Your task to perform on an android device: Open Google Chrome and open the bookmarks view Image 0: 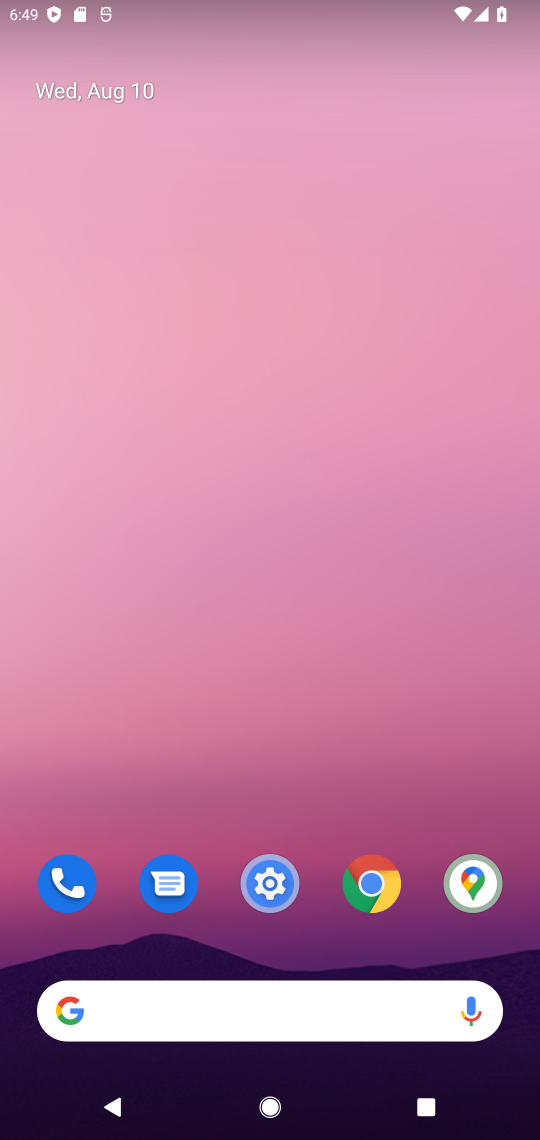
Step 0: click (363, 902)
Your task to perform on an android device: Open Google Chrome and open the bookmarks view Image 1: 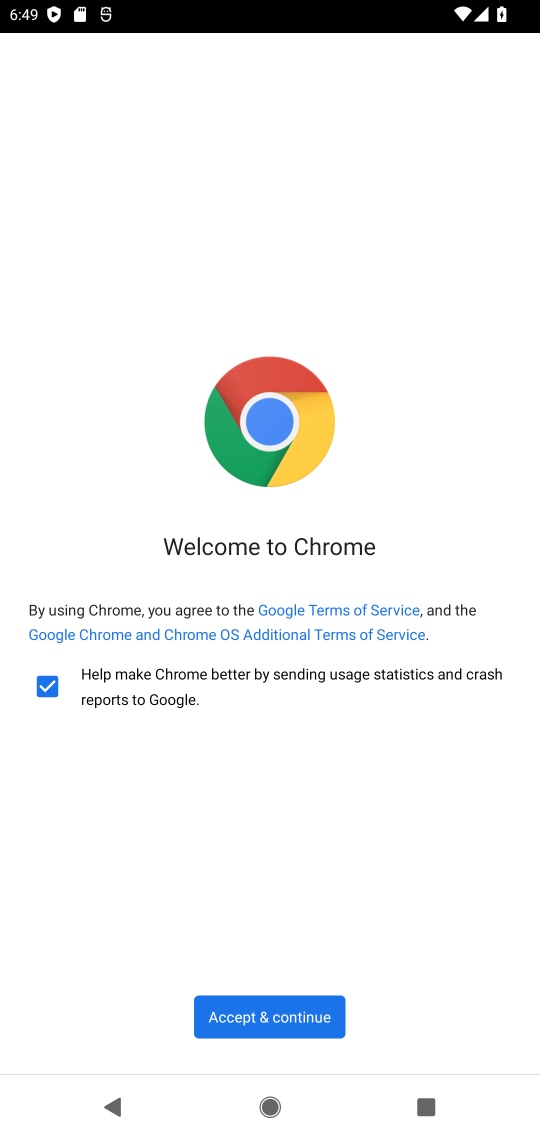
Step 1: click (343, 1030)
Your task to perform on an android device: Open Google Chrome and open the bookmarks view Image 2: 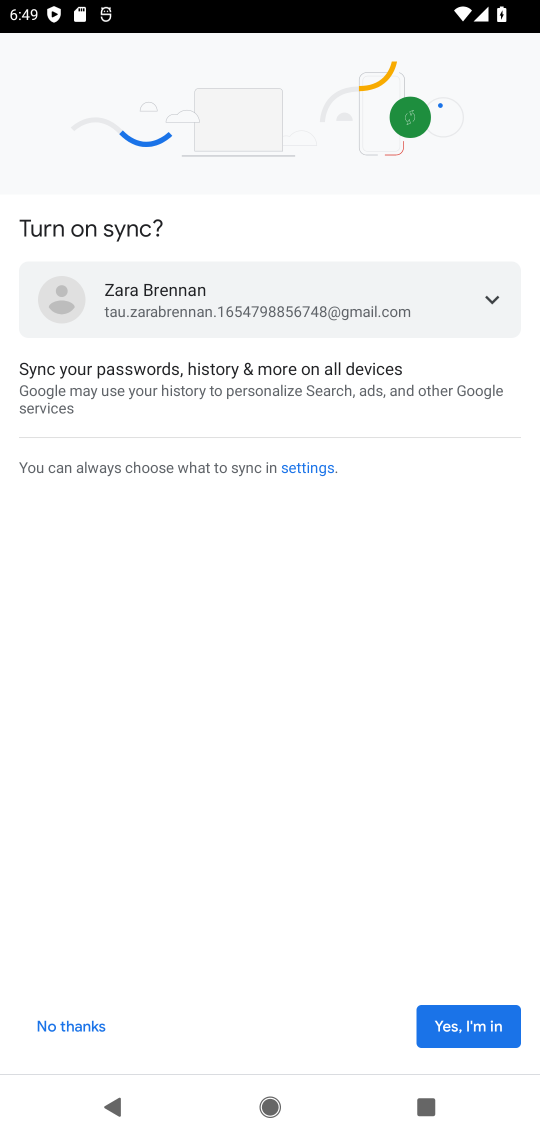
Step 2: click (448, 1032)
Your task to perform on an android device: Open Google Chrome and open the bookmarks view Image 3: 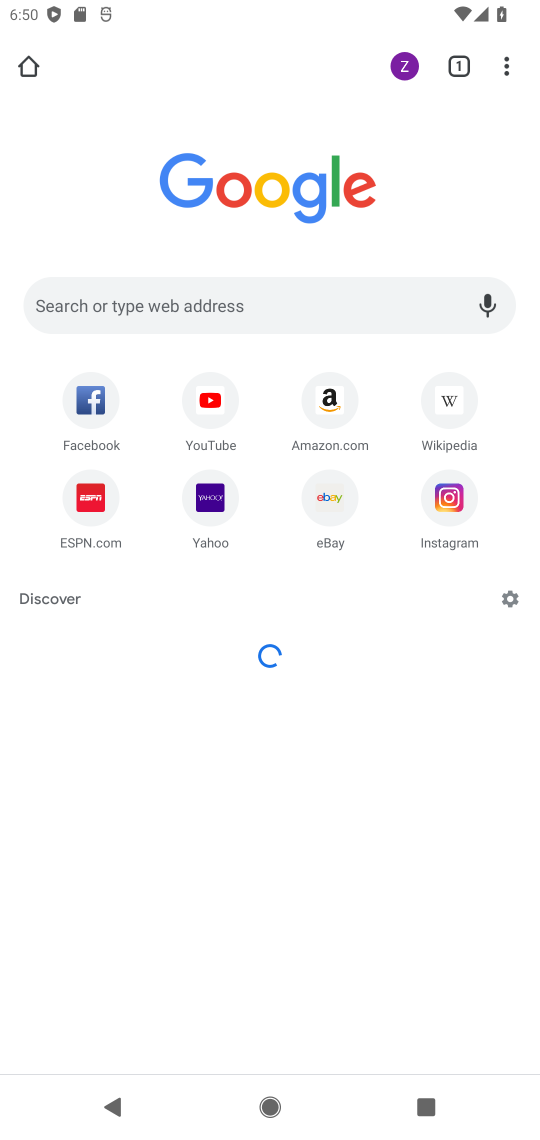
Step 3: click (510, 62)
Your task to perform on an android device: Open Google Chrome and open the bookmarks view Image 4: 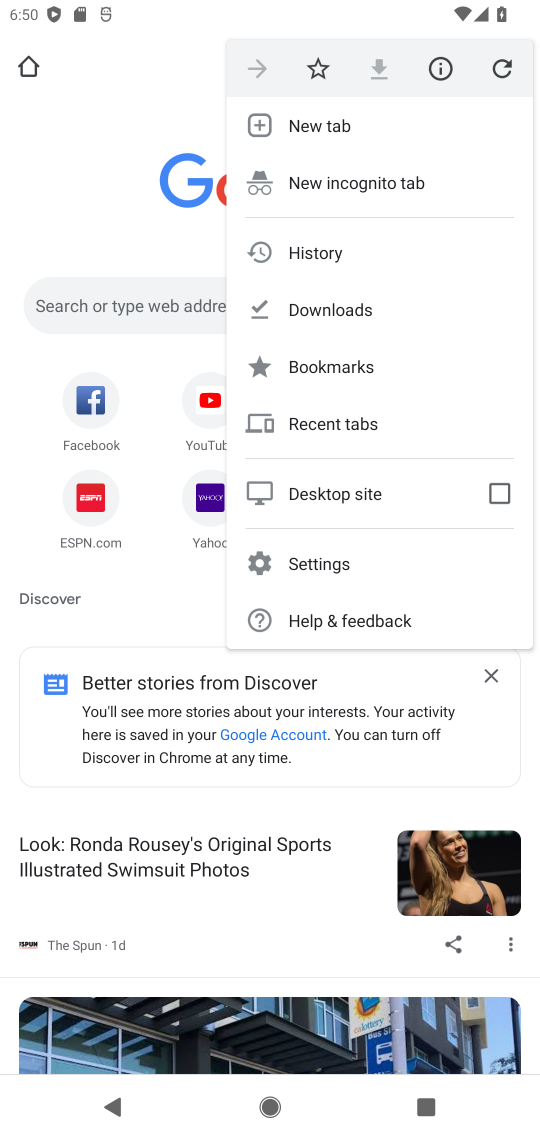
Step 4: click (380, 362)
Your task to perform on an android device: Open Google Chrome and open the bookmarks view Image 5: 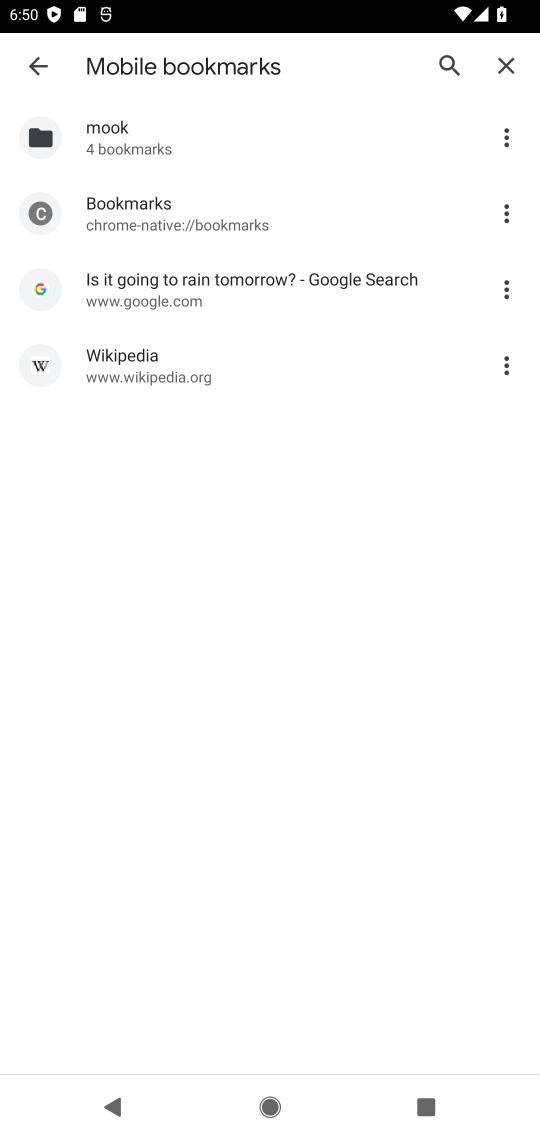
Step 5: task complete